Your task to perform on an android device: turn off translation in the chrome app Image 0: 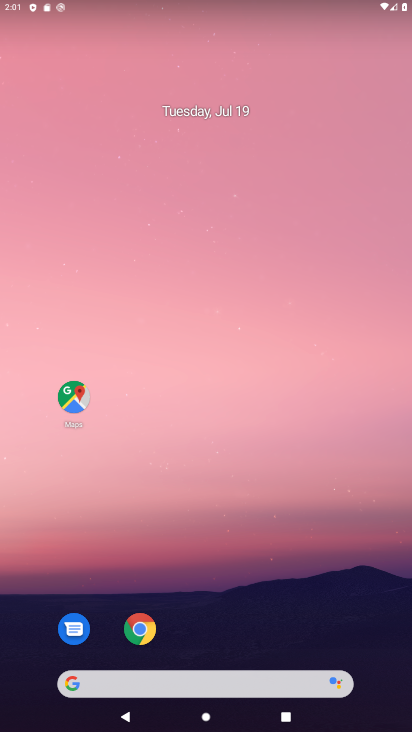
Step 0: click (195, 634)
Your task to perform on an android device: turn off translation in the chrome app Image 1: 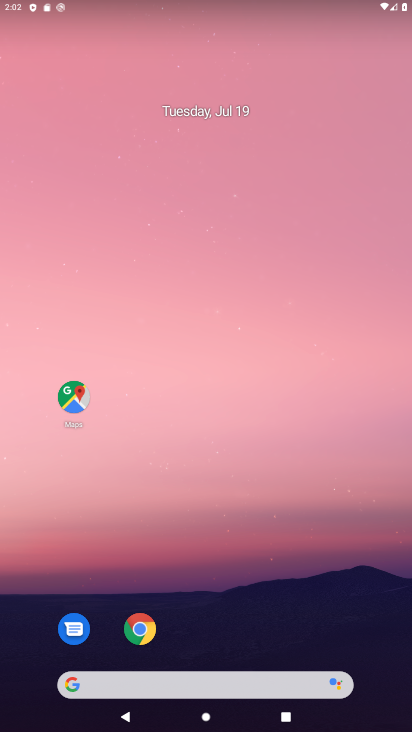
Step 1: click (136, 632)
Your task to perform on an android device: turn off translation in the chrome app Image 2: 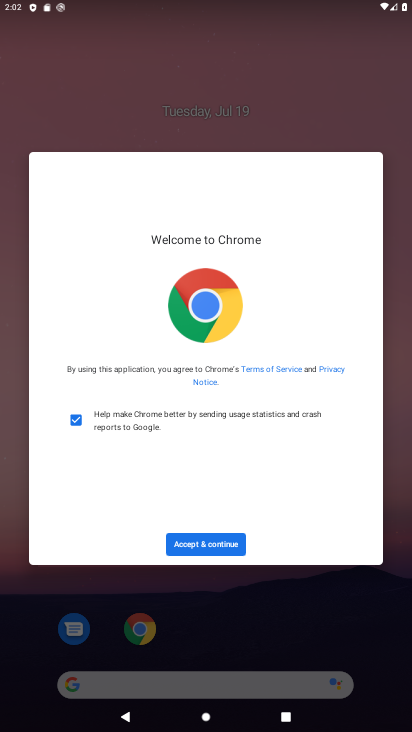
Step 2: click (216, 532)
Your task to perform on an android device: turn off translation in the chrome app Image 3: 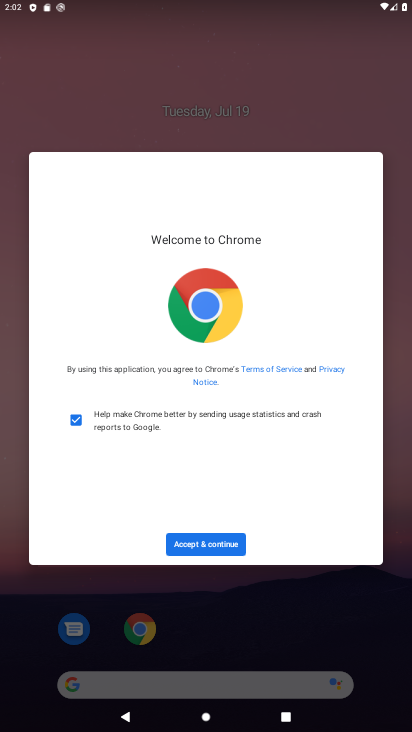
Step 3: click (217, 534)
Your task to perform on an android device: turn off translation in the chrome app Image 4: 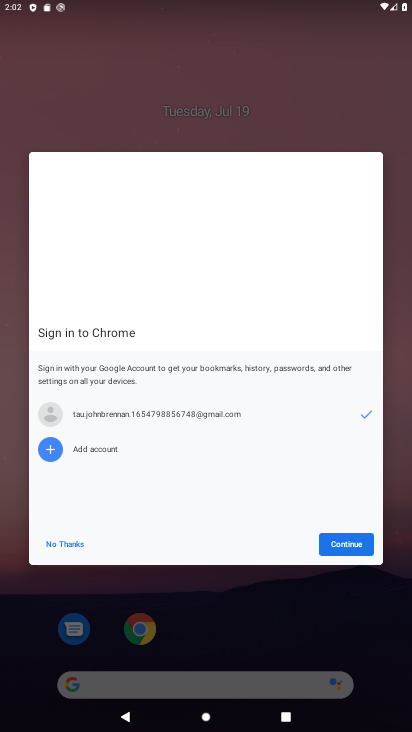
Step 4: click (370, 546)
Your task to perform on an android device: turn off translation in the chrome app Image 5: 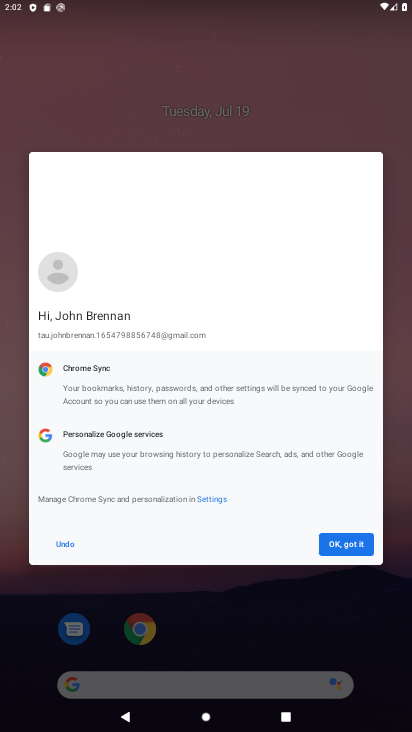
Step 5: click (345, 550)
Your task to perform on an android device: turn off translation in the chrome app Image 6: 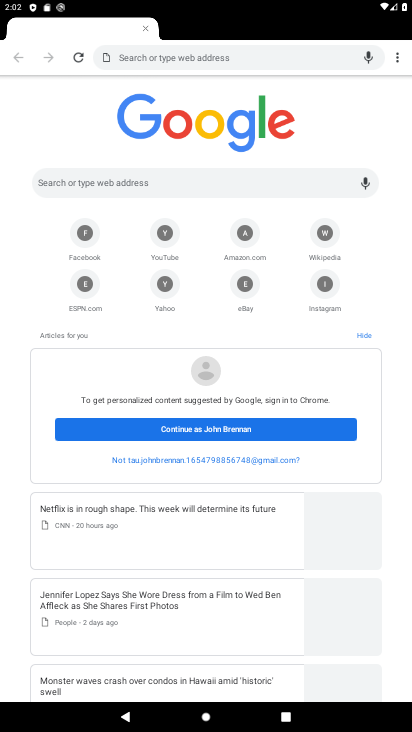
Step 6: click (400, 53)
Your task to perform on an android device: turn off translation in the chrome app Image 7: 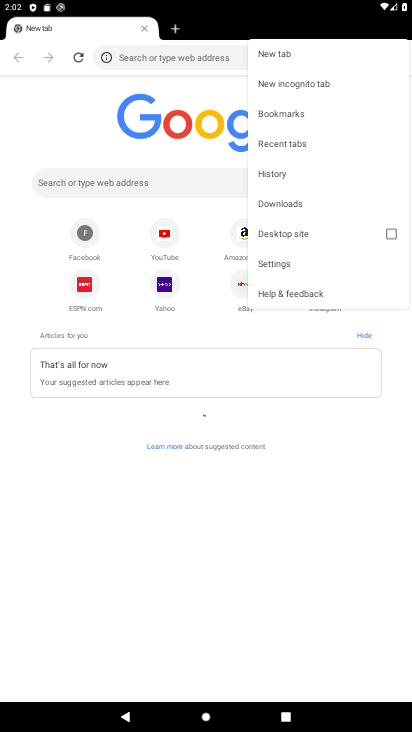
Step 7: click (295, 264)
Your task to perform on an android device: turn off translation in the chrome app Image 8: 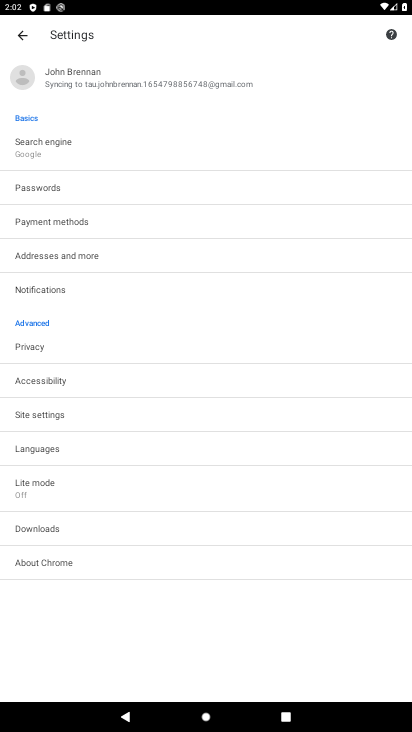
Step 8: click (45, 458)
Your task to perform on an android device: turn off translation in the chrome app Image 9: 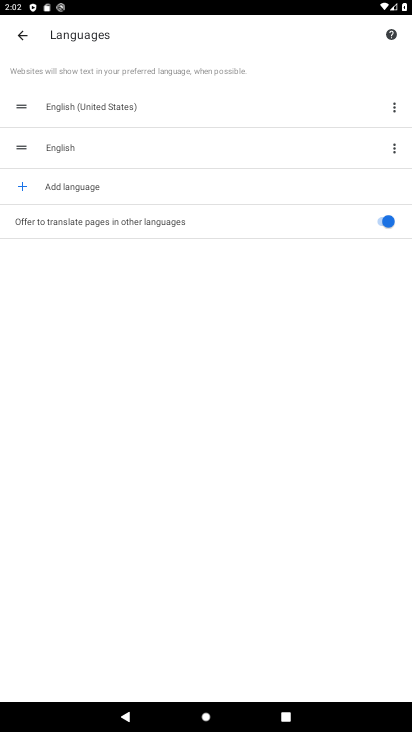
Step 9: click (378, 222)
Your task to perform on an android device: turn off translation in the chrome app Image 10: 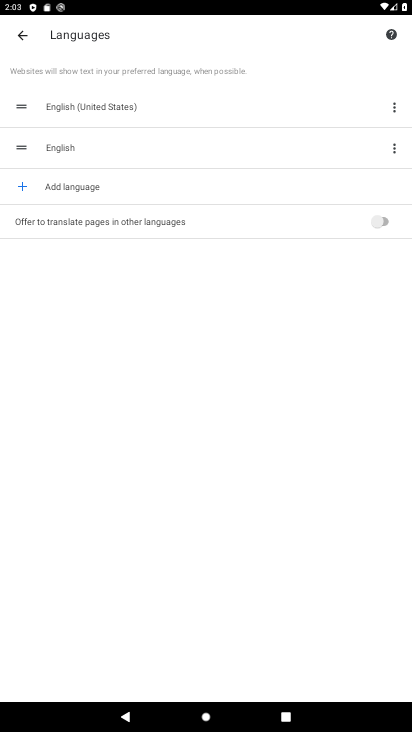
Step 10: task complete